Your task to perform on an android device: Show me productivity apps on the Play Store Image 0: 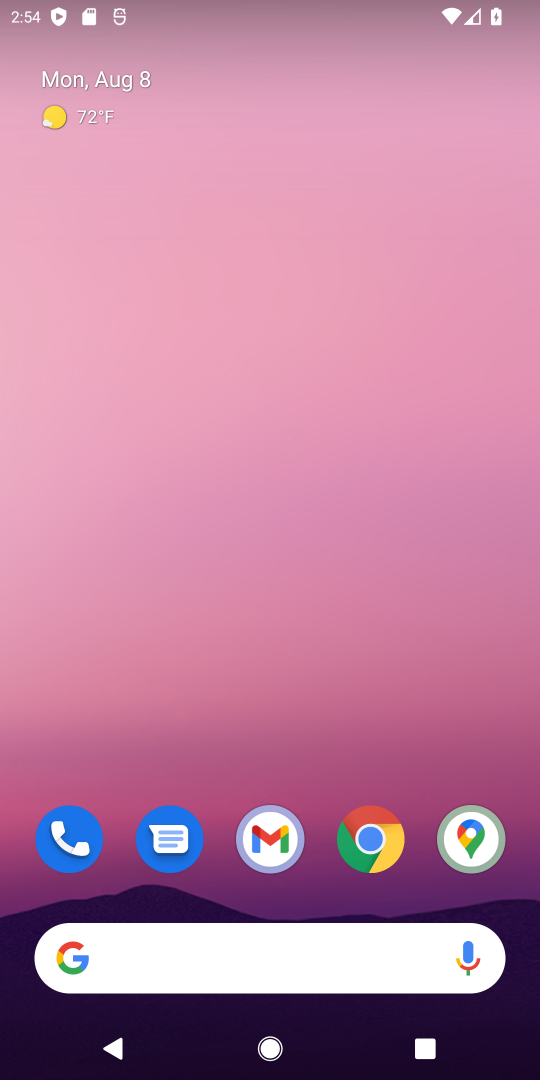
Step 0: press home button
Your task to perform on an android device: Show me productivity apps on the Play Store Image 1: 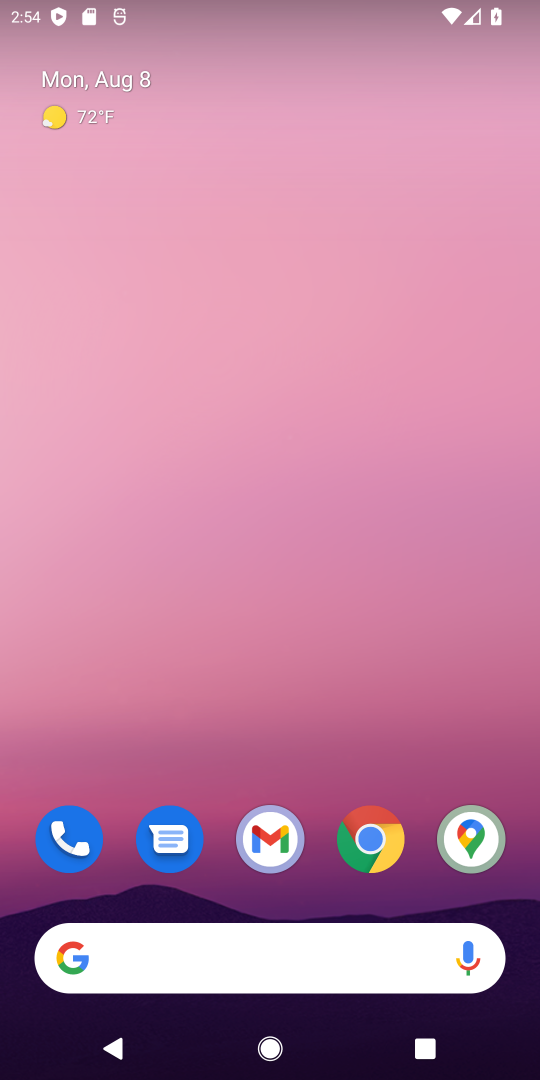
Step 1: drag from (403, 738) to (402, 163)
Your task to perform on an android device: Show me productivity apps on the Play Store Image 2: 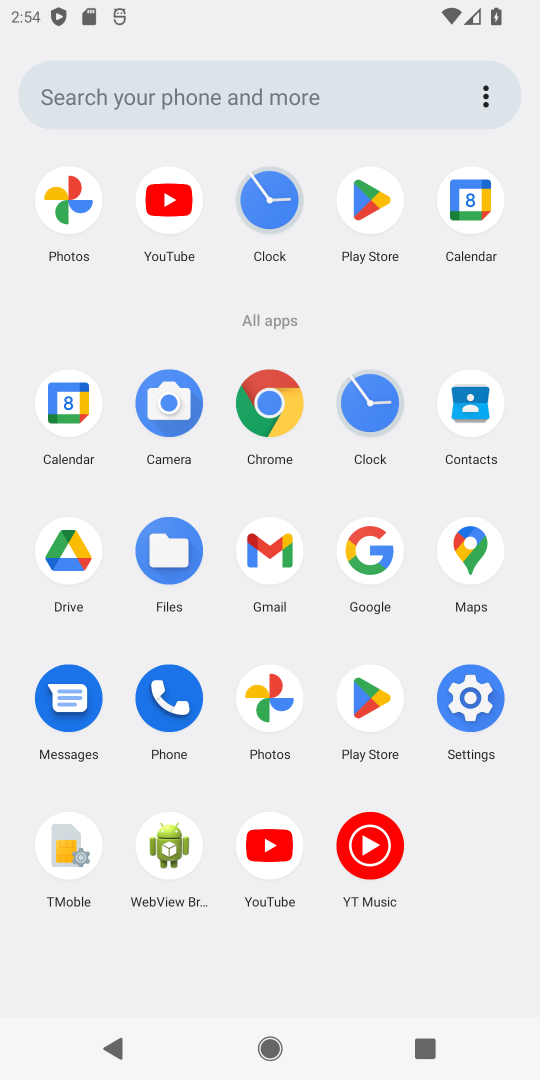
Step 2: click (374, 700)
Your task to perform on an android device: Show me productivity apps on the Play Store Image 3: 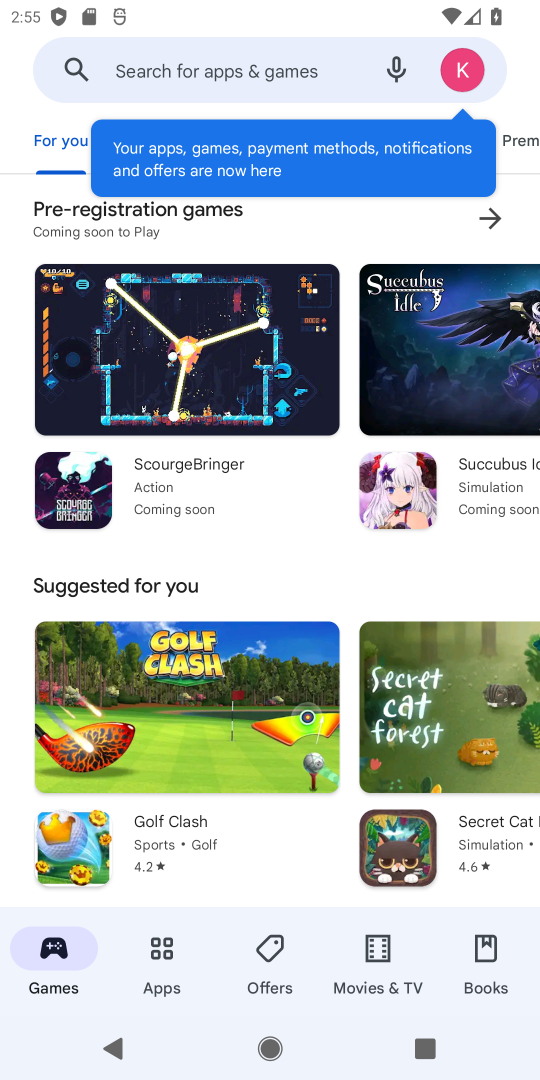
Step 3: click (164, 963)
Your task to perform on an android device: Show me productivity apps on the Play Store Image 4: 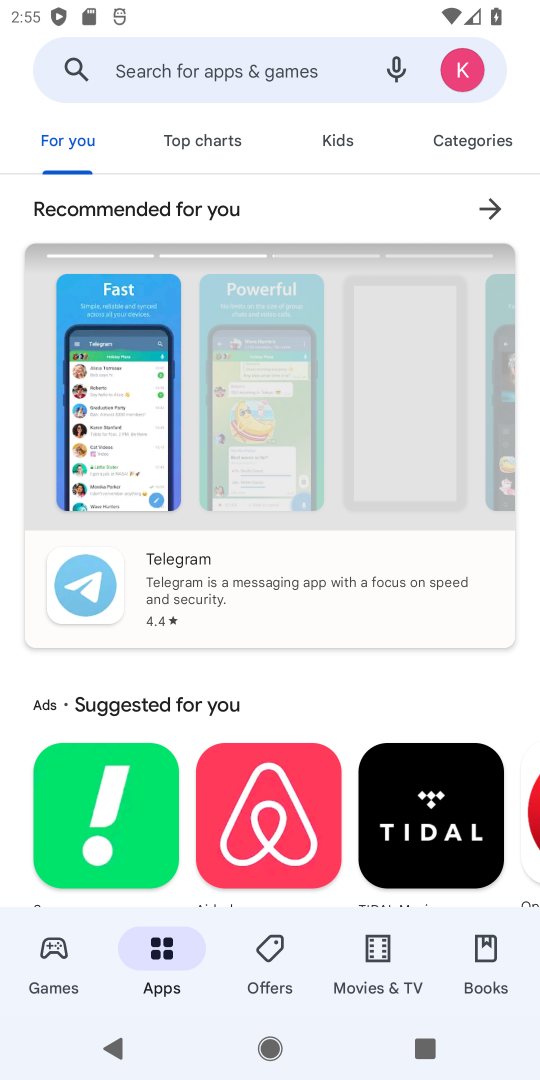
Step 4: task complete